Your task to perform on an android device: allow cookies in the chrome app Image 0: 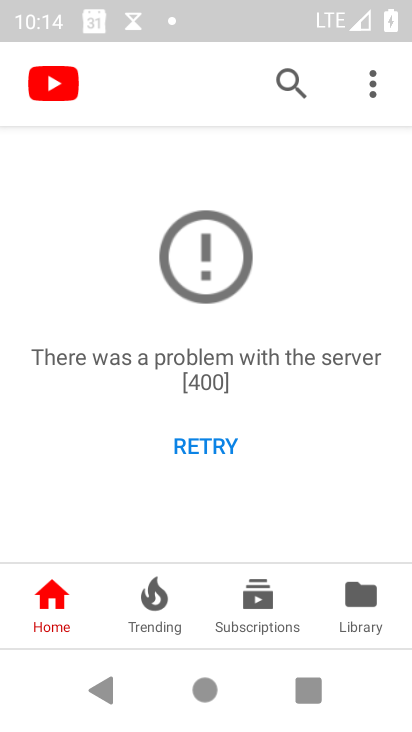
Step 0: press home button
Your task to perform on an android device: allow cookies in the chrome app Image 1: 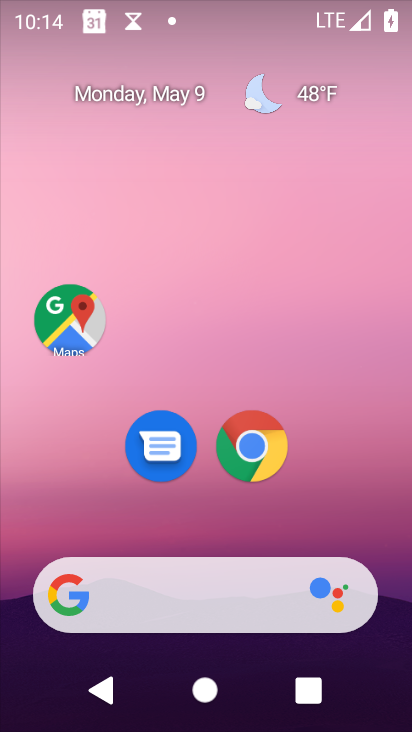
Step 1: click (270, 457)
Your task to perform on an android device: allow cookies in the chrome app Image 2: 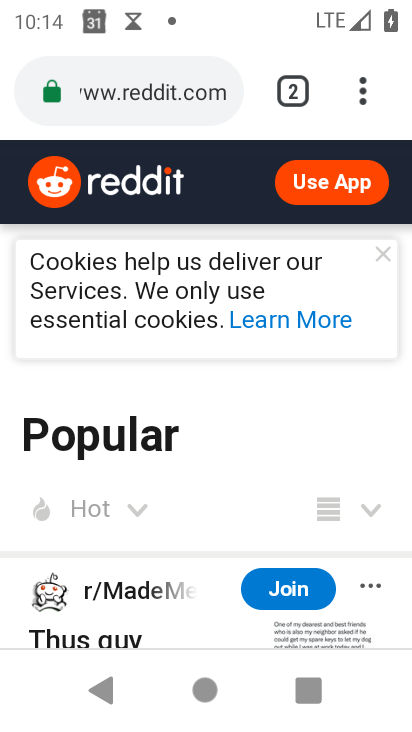
Step 2: click (373, 93)
Your task to perform on an android device: allow cookies in the chrome app Image 3: 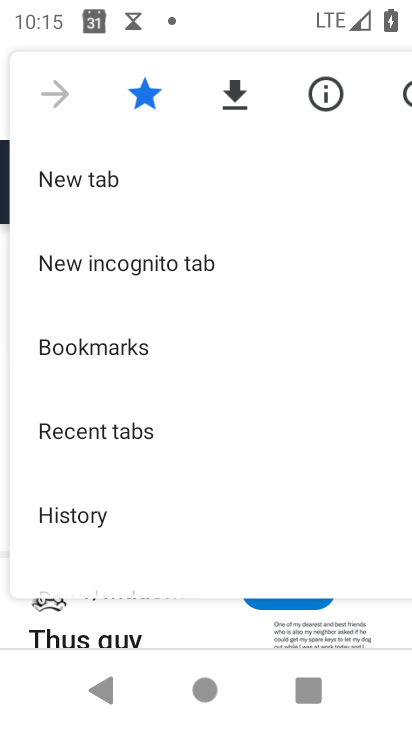
Step 3: click (80, 518)
Your task to perform on an android device: allow cookies in the chrome app Image 4: 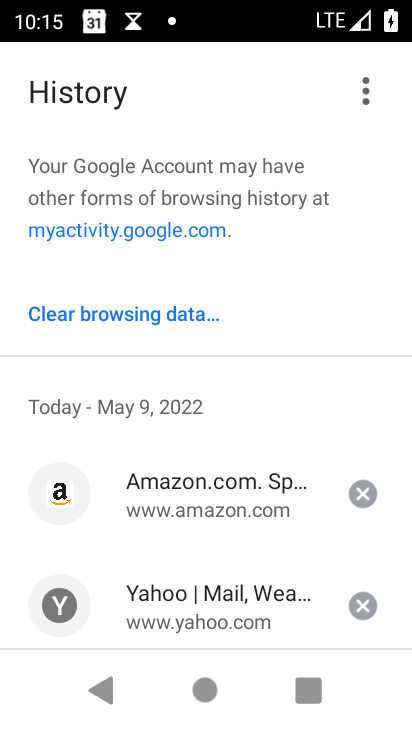
Step 4: click (153, 308)
Your task to perform on an android device: allow cookies in the chrome app Image 5: 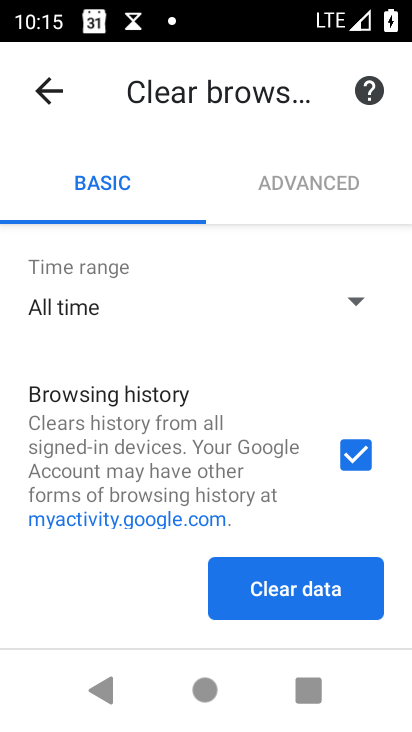
Step 5: drag from (219, 479) to (203, 177)
Your task to perform on an android device: allow cookies in the chrome app Image 6: 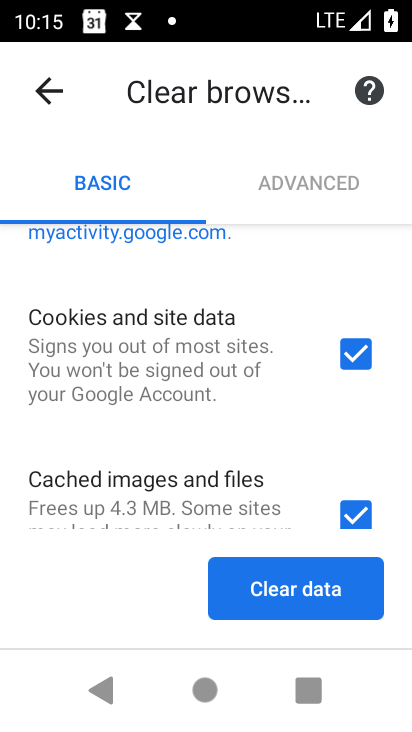
Step 6: click (286, 579)
Your task to perform on an android device: allow cookies in the chrome app Image 7: 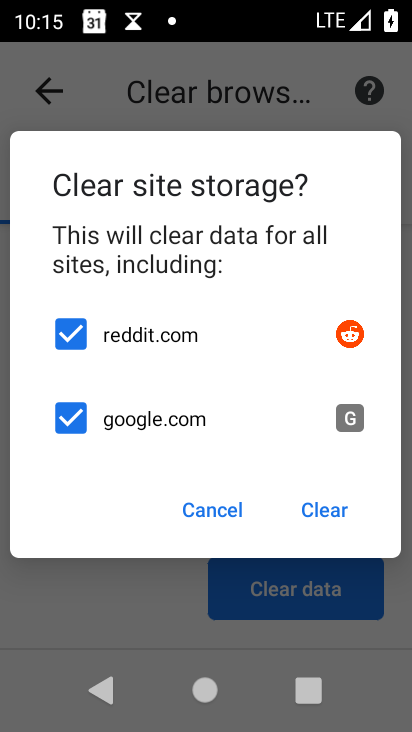
Step 7: click (325, 514)
Your task to perform on an android device: allow cookies in the chrome app Image 8: 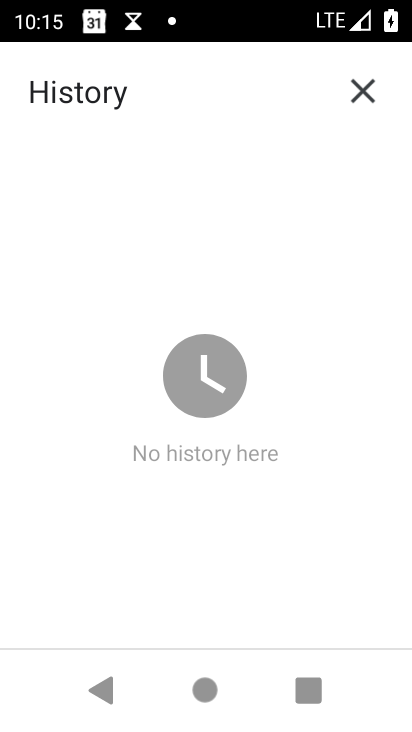
Step 8: task complete